Your task to perform on an android device: Open Chrome and go to settings Image 0: 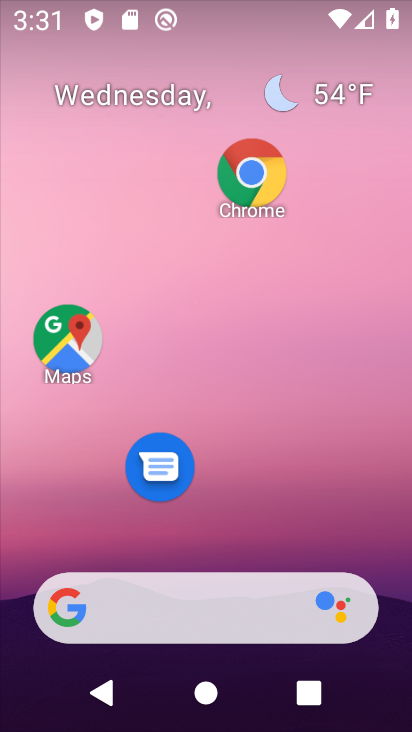
Step 0: click (245, 178)
Your task to perform on an android device: Open Chrome and go to settings Image 1: 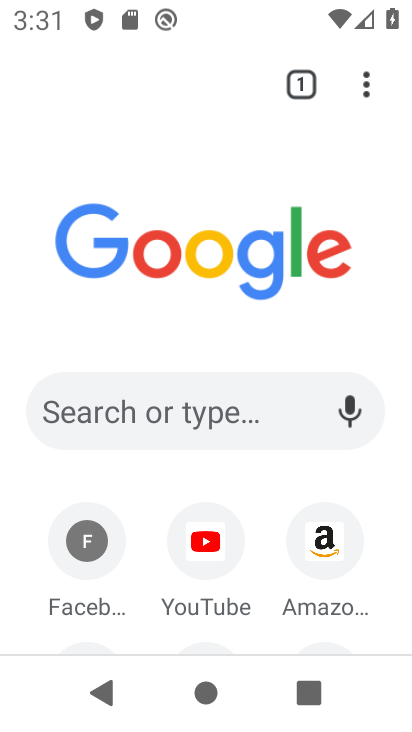
Step 1: task complete